Your task to perform on an android device: toggle location history Image 0: 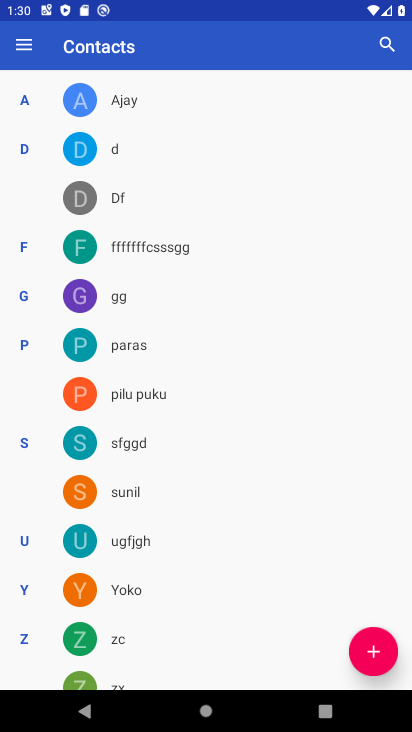
Step 0: press home button
Your task to perform on an android device: toggle location history Image 1: 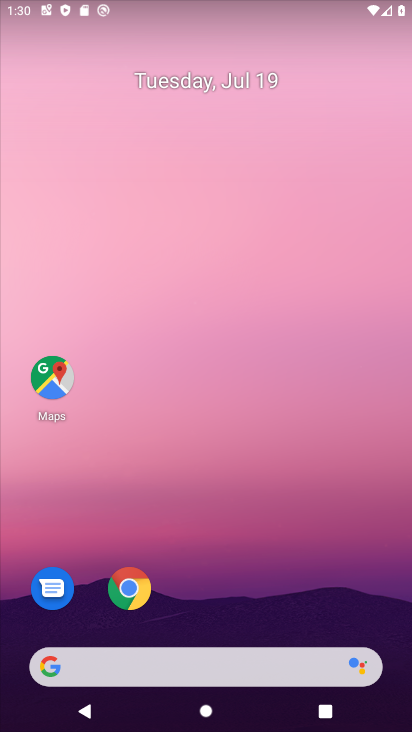
Step 1: drag from (10, 702) to (243, 224)
Your task to perform on an android device: toggle location history Image 2: 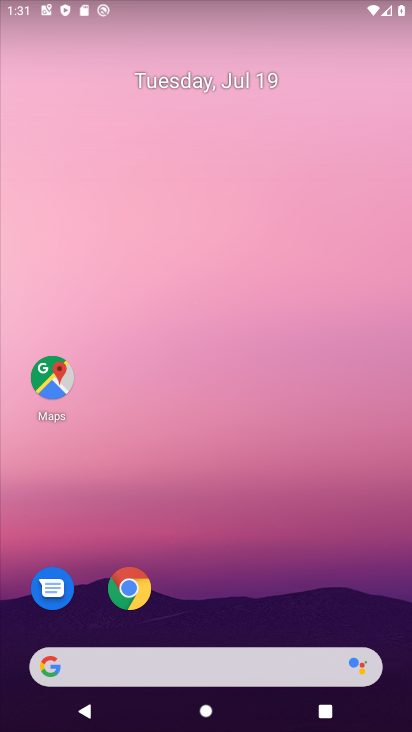
Step 2: drag from (192, 331) to (240, 120)
Your task to perform on an android device: toggle location history Image 3: 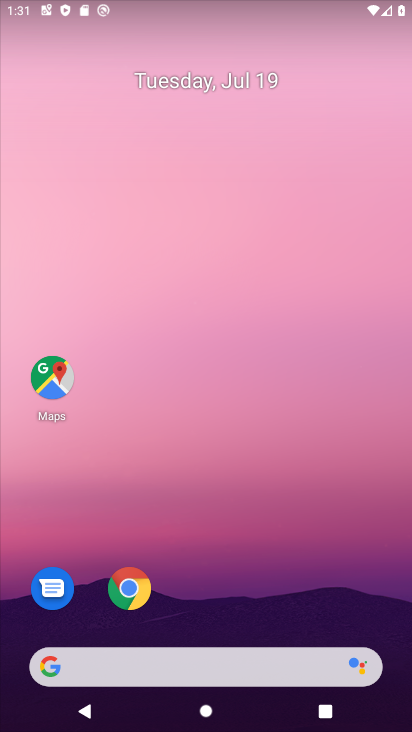
Step 3: drag from (43, 710) to (243, 103)
Your task to perform on an android device: toggle location history Image 4: 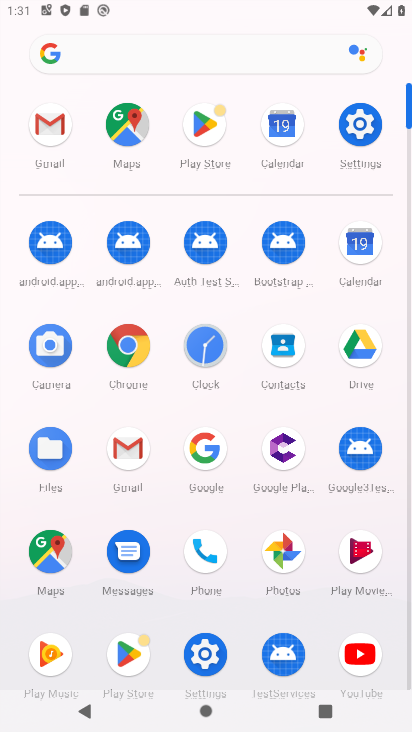
Step 4: click (211, 654)
Your task to perform on an android device: toggle location history Image 5: 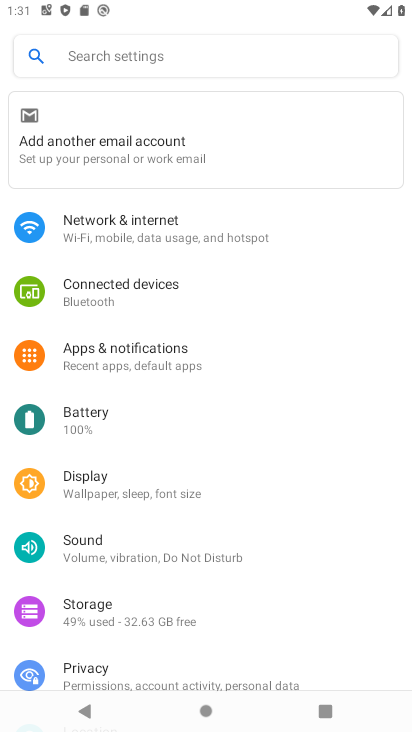
Step 5: drag from (205, 560) to (206, 267)
Your task to perform on an android device: toggle location history Image 6: 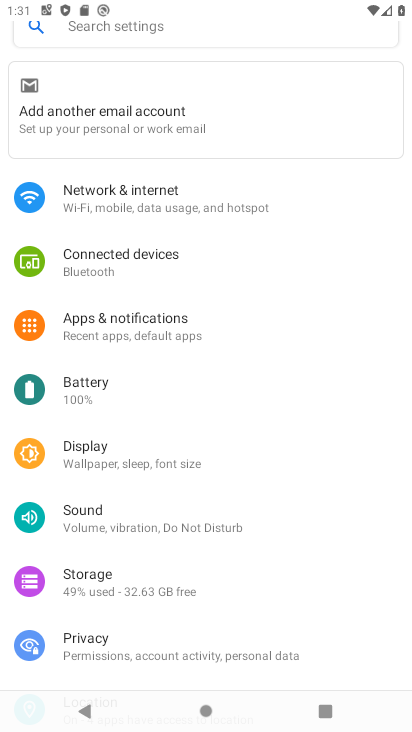
Step 6: drag from (263, 371) to (263, 419)
Your task to perform on an android device: toggle location history Image 7: 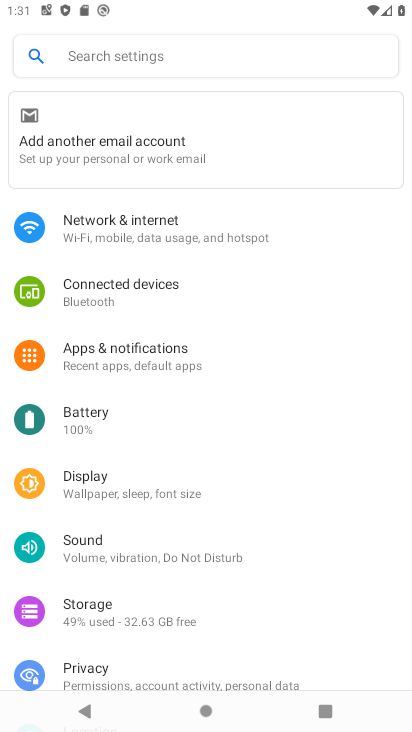
Step 7: drag from (260, 568) to (342, 232)
Your task to perform on an android device: toggle location history Image 8: 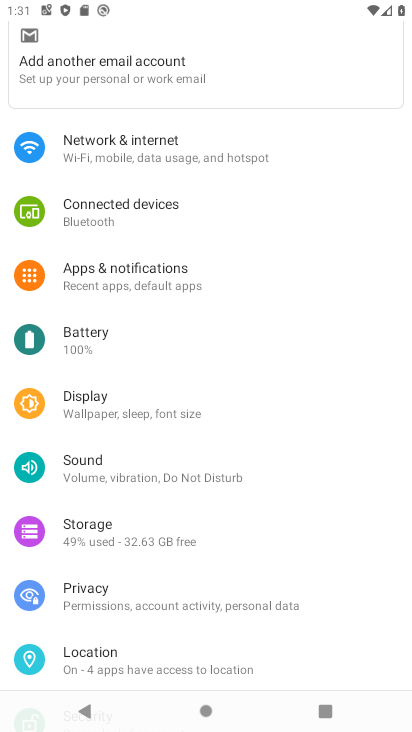
Step 8: click (193, 653)
Your task to perform on an android device: toggle location history Image 9: 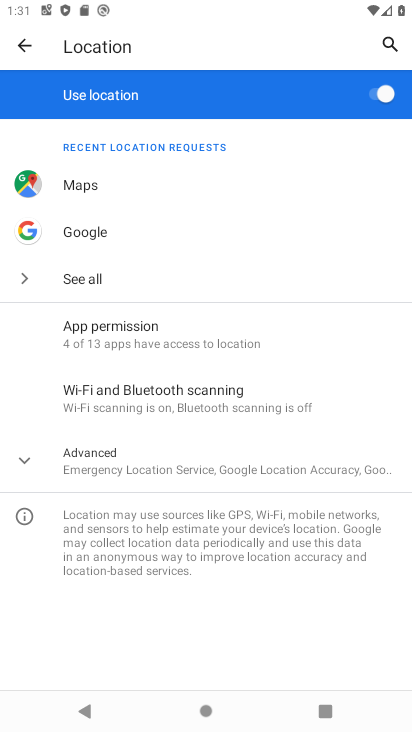
Step 9: click (109, 455)
Your task to perform on an android device: toggle location history Image 10: 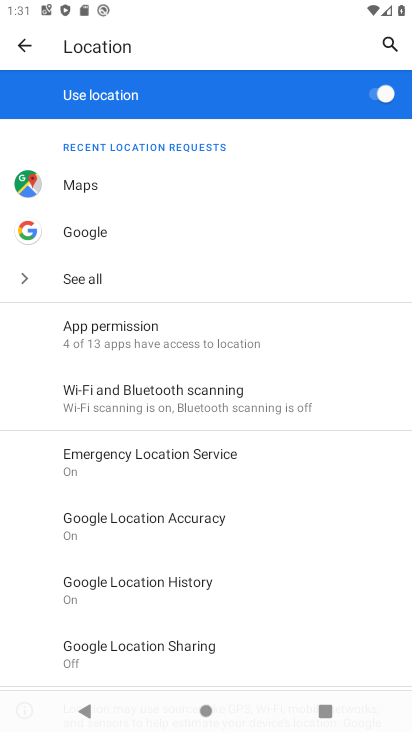
Step 10: task complete